Your task to perform on an android device: check out phone information Image 0: 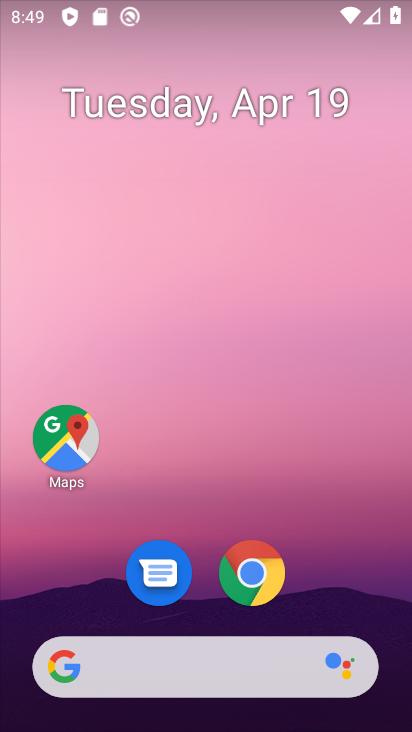
Step 0: drag from (195, 487) to (166, 6)
Your task to perform on an android device: check out phone information Image 1: 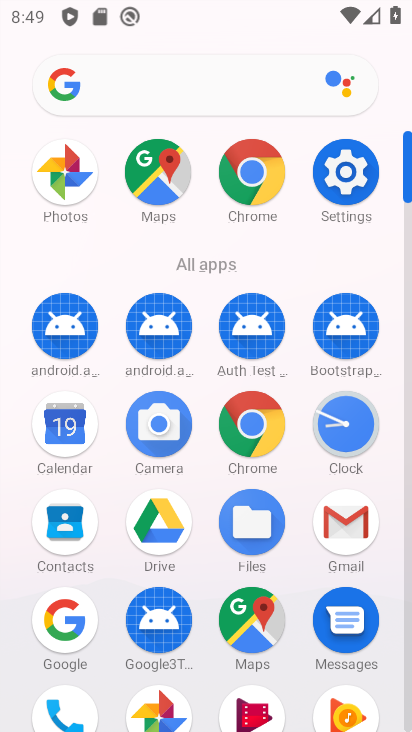
Step 1: click (341, 186)
Your task to perform on an android device: check out phone information Image 2: 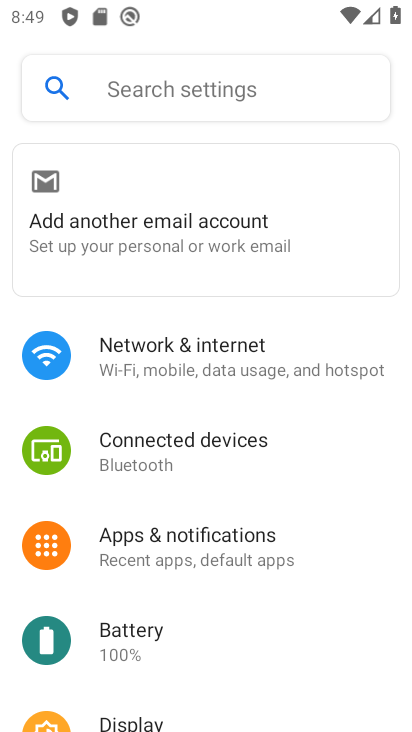
Step 2: drag from (207, 616) to (191, 216)
Your task to perform on an android device: check out phone information Image 3: 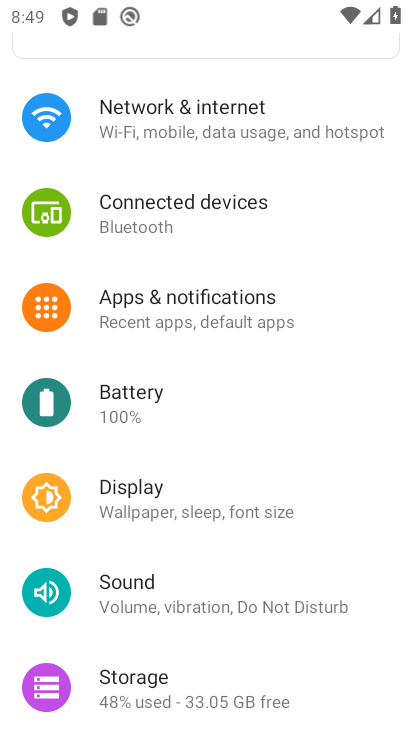
Step 3: drag from (202, 581) to (198, 236)
Your task to perform on an android device: check out phone information Image 4: 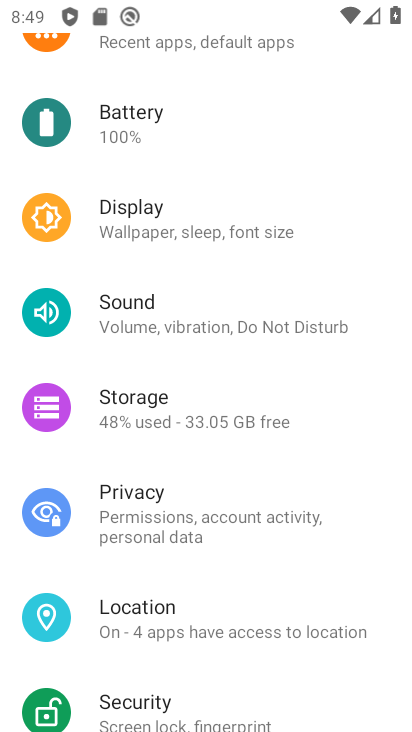
Step 4: drag from (228, 573) to (253, 186)
Your task to perform on an android device: check out phone information Image 5: 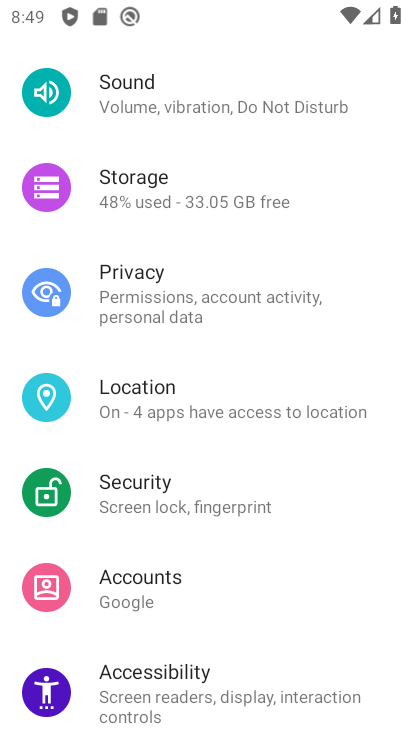
Step 5: drag from (227, 562) to (212, 8)
Your task to perform on an android device: check out phone information Image 6: 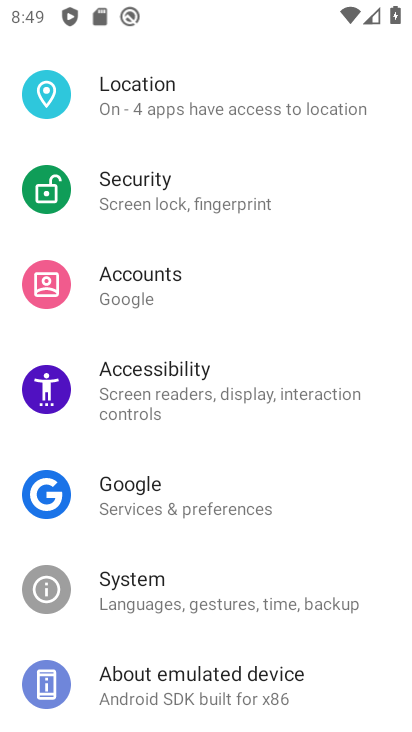
Step 6: click (159, 670)
Your task to perform on an android device: check out phone information Image 7: 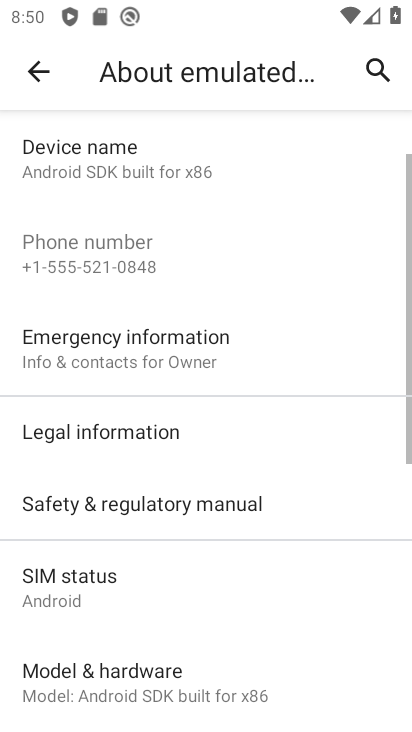
Step 7: task complete